Your task to perform on an android device: When is my next meeting? Image 0: 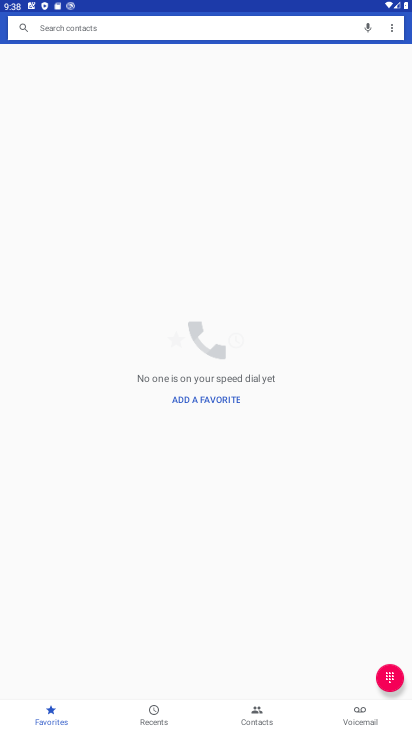
Step 0: press home button
Your task to perform on an android device: When is my next meeting? Image 1: 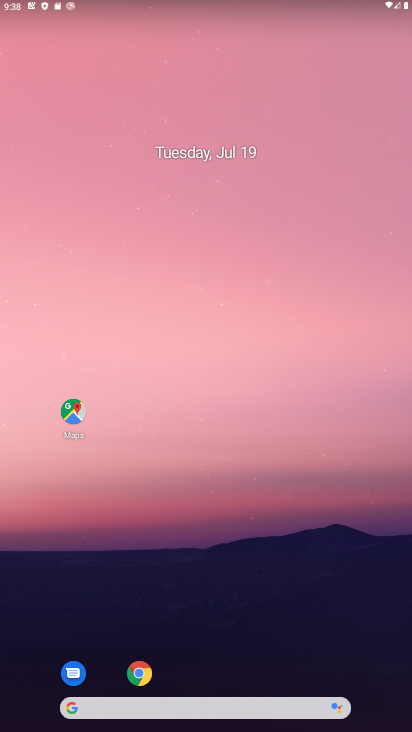
Step 1: drag from (194, 568) to (191, 350)
Your task to perform on an android device: When is my next meeting? Image 2: 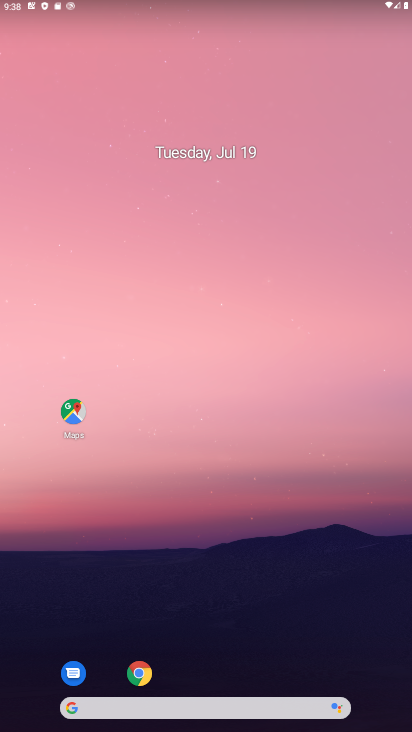
Step 2: drag from (204, 659) to (240, 73)
Your task to perform on an android device: When is my next meeting? Image 3: 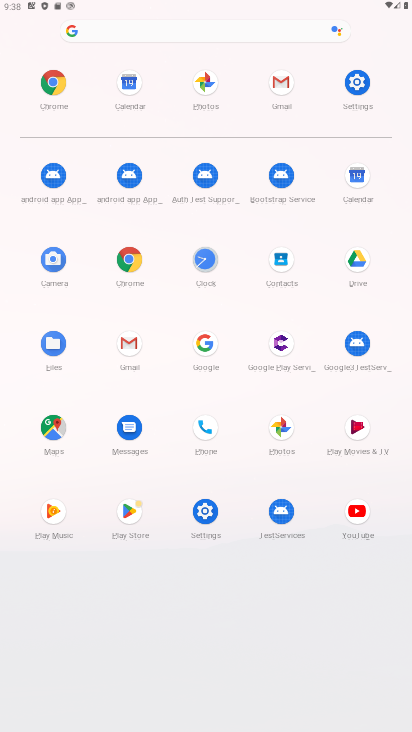
Step 3: click (360, 178)
Your task to perform on an android device: When is my next meeting? Image 4: 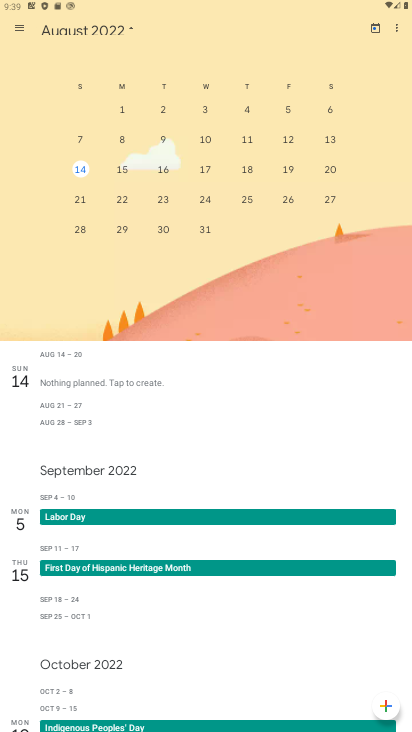
Step 4: task complete